Your task to perform on an android device: What's on my calendar tomorrow? Image 0: 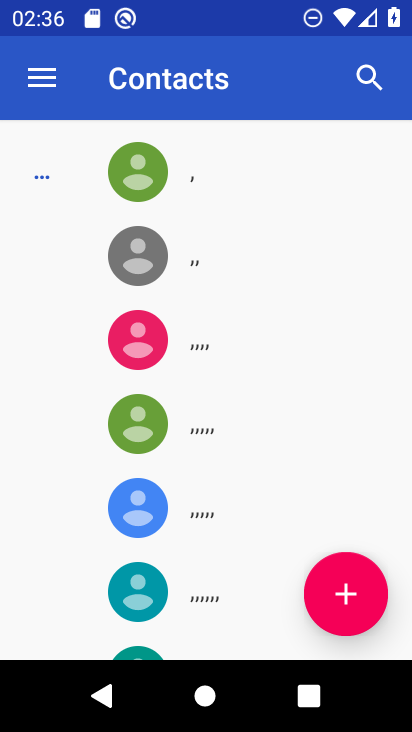
Step 0: press home button
Your task to perform on an android device: What's on my calendar tomorrow? Image 1: 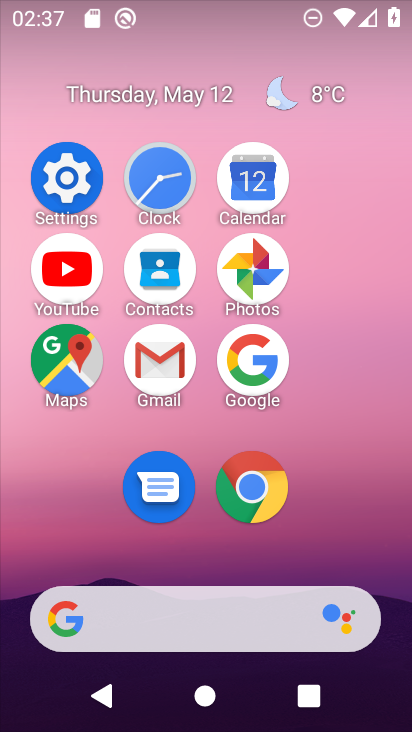
Step 1: click (227, 186)
Your task to perform on an android device: What's on my calendar tomorrow? Image 2: 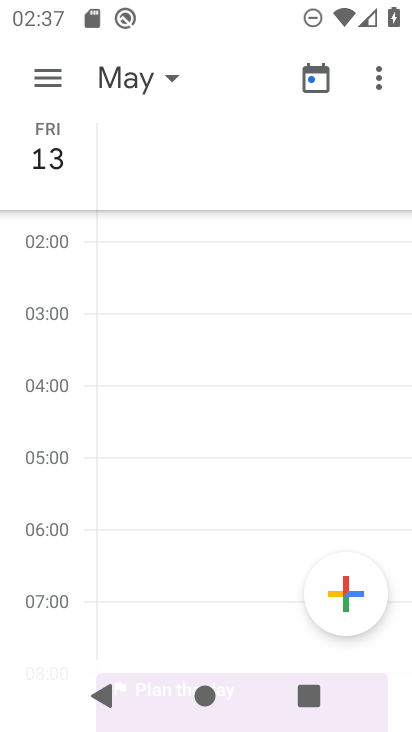
Step 2: task complete